Your task to perform on an android device: Check the weather Image 0: 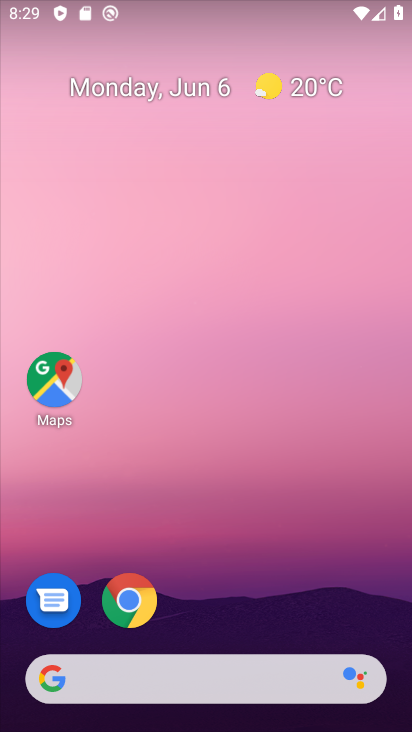
Step 0: click (194, 670)
Your task to perform on an android device: Check the weather Image 1: 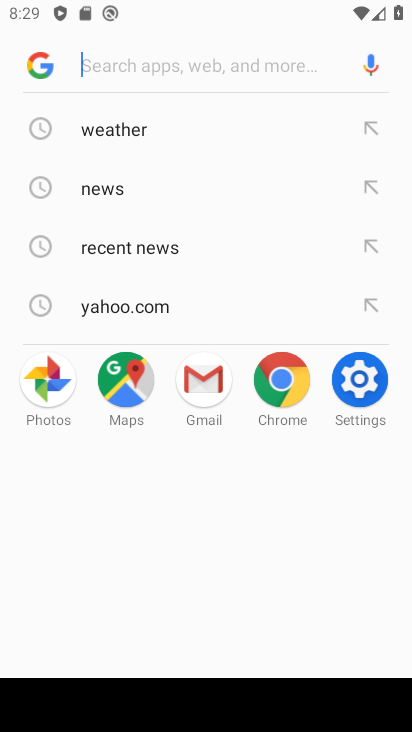
Step 1: click (141, 123)
Your task to perform on an android device: Check the weather Image 2: 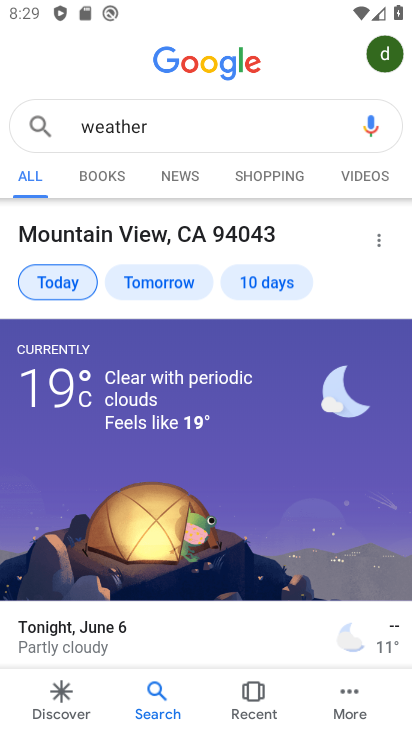
Step 2: task complete